Your task to perform on an android device: Open Google Maps Image 0: 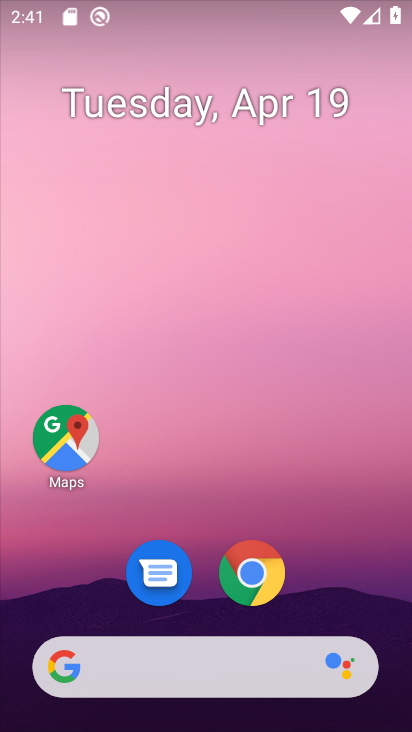
Step 0: click (58, 417)
Your task to perform on an android device: Open Google Maps Image 1: 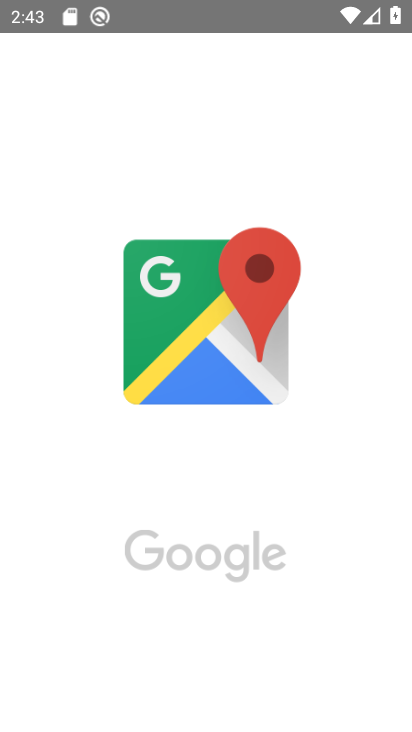
Step 1: task complete